Your task to perform on an android device: install app "HBO Max: Stream TV & Movies" Image 0: 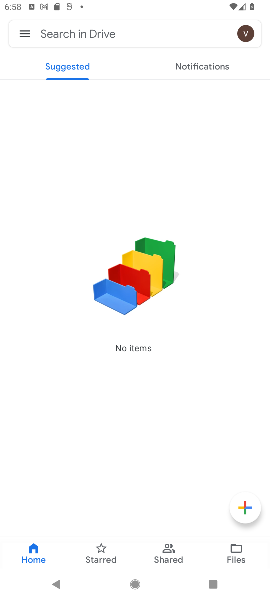
Step 0: press home button
Your task to perform on an android device: install app "HBO Max: Stream TV & Movies" Image 1: 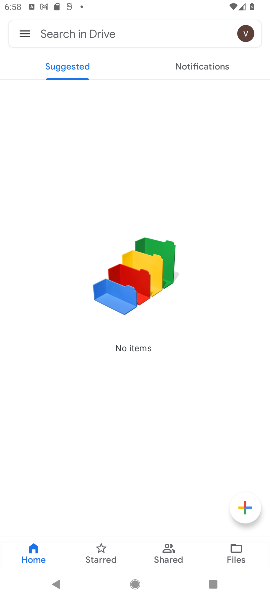
Step 1: press home button
Your task to perform on an android device: install app "HBO Max: Stream TV & Movies" Image 2: 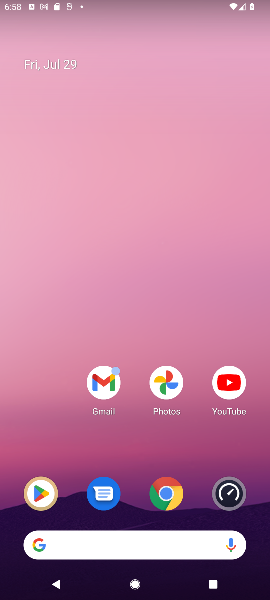
Step 2: click (35, 497)
Your task to perform on an android device: install app "HBO Max: Stream TV & Movies" Image 3: 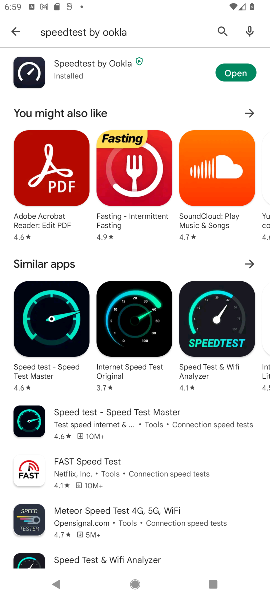
Step 3: click (216, 28)
Your task to perform on an android device: install app "HBO Max: Stream TV & Movies" Image 4: 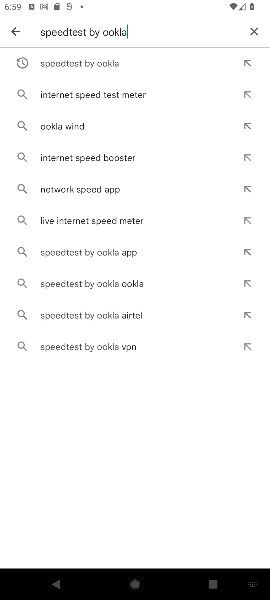
Step 4: click (249, 29)
Your task to perform on an android device: install app "HBO Max: Stream TV & Movies" Image 5: 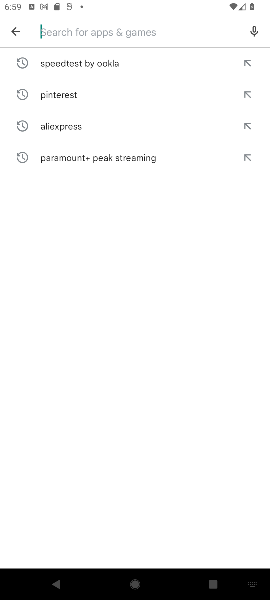
Step 5: type "HBO Max: Stream TV & Movies"
Your task to perform on an android device: install app "HBO Max: Stream TV & Movies" Image 6: 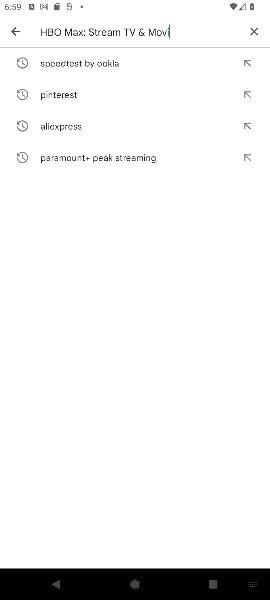
Step 6: type ""
Your task to perform on an android device: install app "HBO Max: Stream TV & Movies" Image 7: 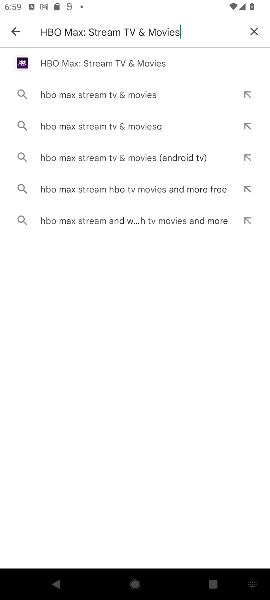
Step 7: click (105, 64)
Your task to perform on an android device: install app "HBO Max: Stream TV & Movies" Image 8: 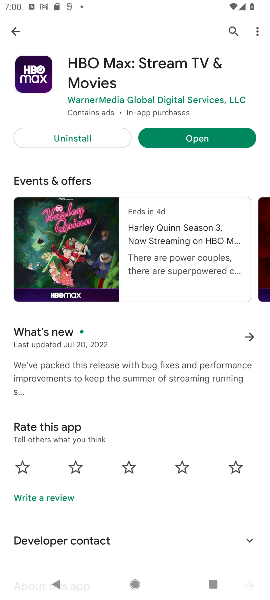
Step 8: task complete